Your task to perform on an android device: Go to Yahoo.com Image 0: 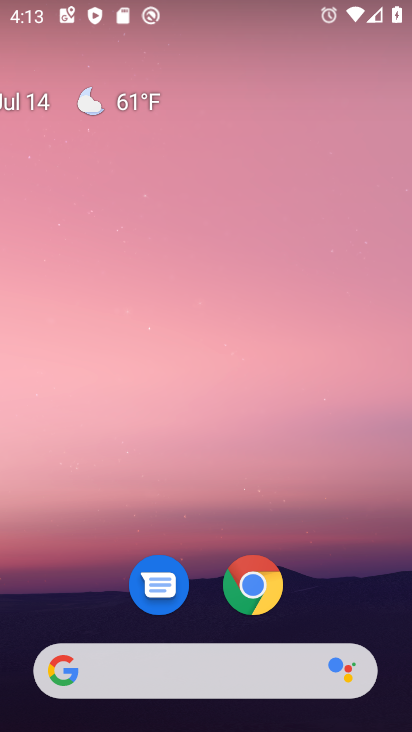
Step 0: click (261, 593)
Your task to perform on an android device: Go to Yahoo.com Image 1: 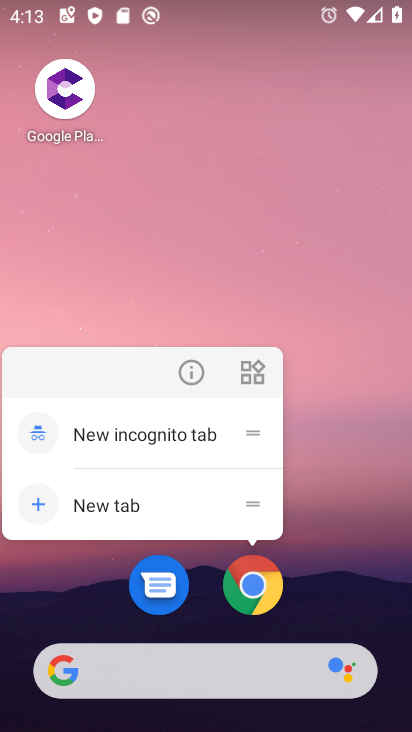
Step 1: click (250, 582)
Your task to perform on an android device: Go to Yahoo.com Image 2: 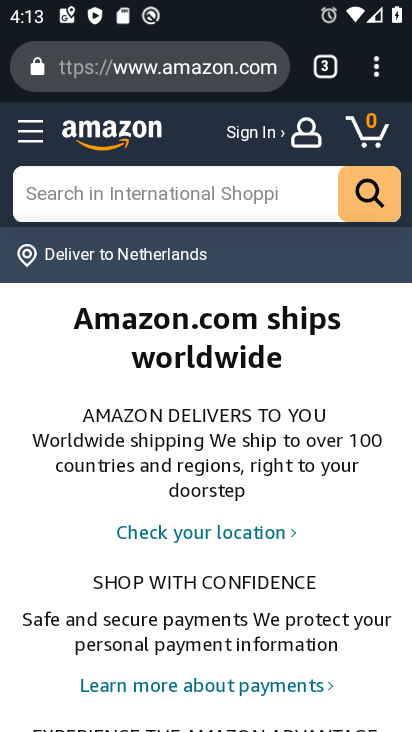
Step 2: click (378, 66)
Your task to perform on an android device: Go to Yahoo.com Image 3: 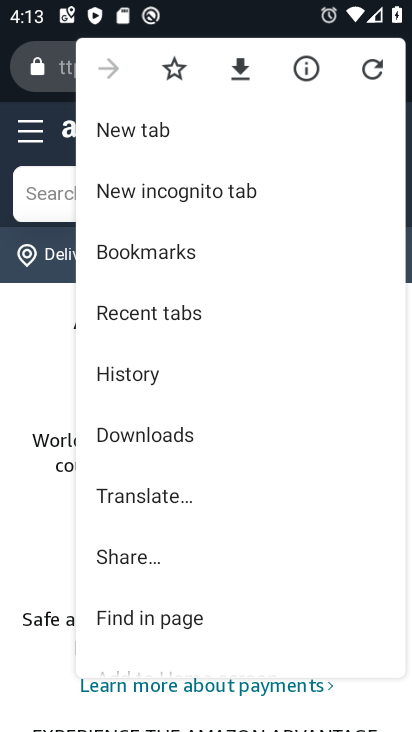
Step 3: click (224, 135)
Your task to perform on an android device: Go to Yahoo.com Image 4: 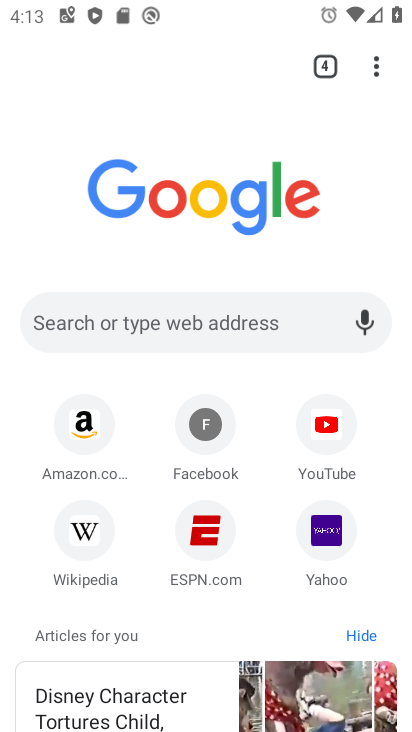
Step 4: click (328, 536)
Your task to perform on an android device: Go to Yahoo.com Image 5: 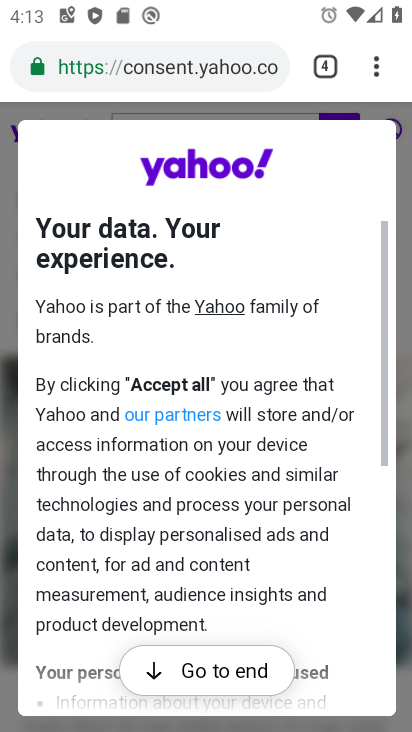
Step 5: click (234, 670)
Your task to perform on an android device: Go to Yahoo.com Image 6: 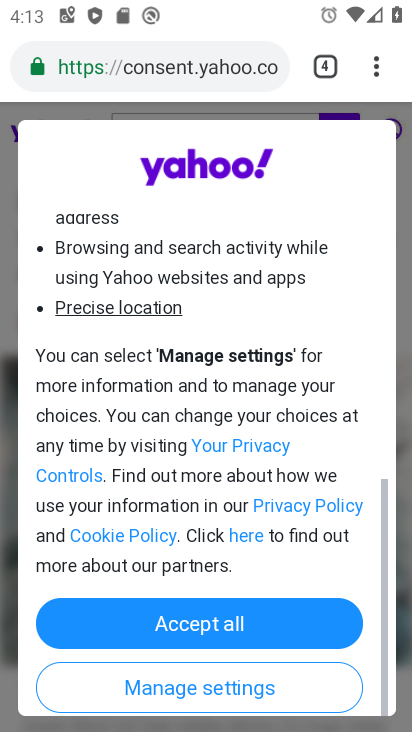
Step 6: click (247, 628)
Your task to perform on an android device: Go to Yahoo.com Image 7: 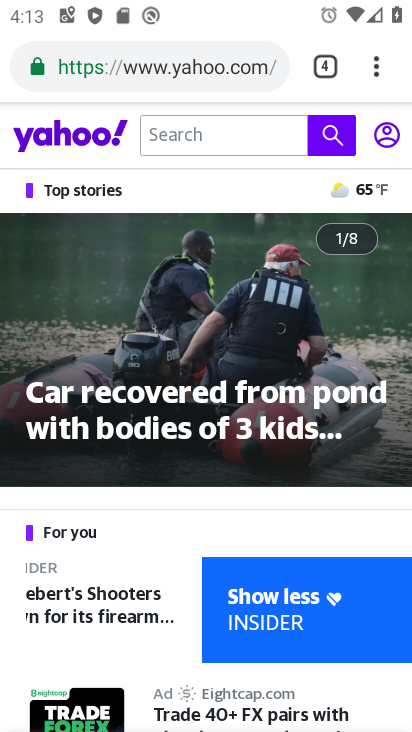
Step 7: task complete